Your task to perform on an android device: Go to Reddit.com Image 0: 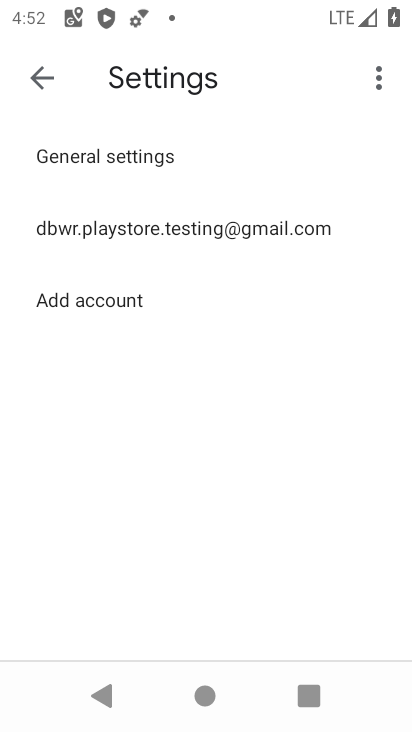
Step 0: press home button
Your task to perform on an android device: Go to Reddit.com Image 1: 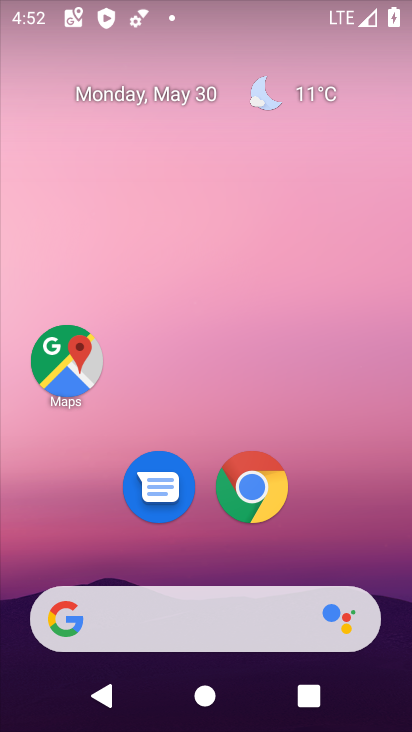
Step 1: click (249, 483)
Your task to perform on an android device: Go to Reddit.com Image 2: 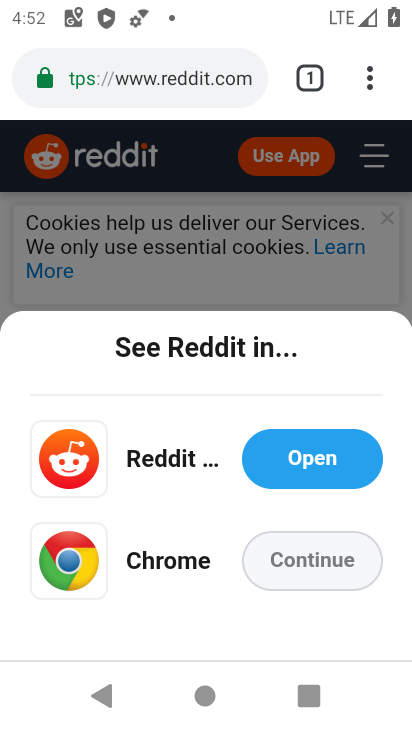
Step 2: task complete